Your task to perform on an android device: Open Google Maps Image 0: 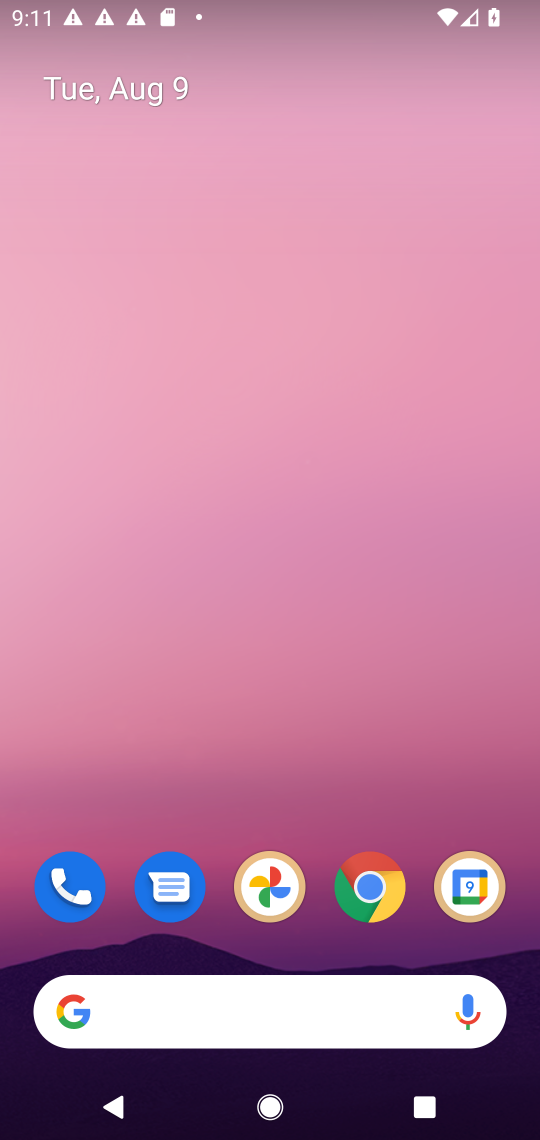
Step 0: drag from (287, 819) to (318, 204)
Your task to perform on an android device: Open Google Maps Image 1: 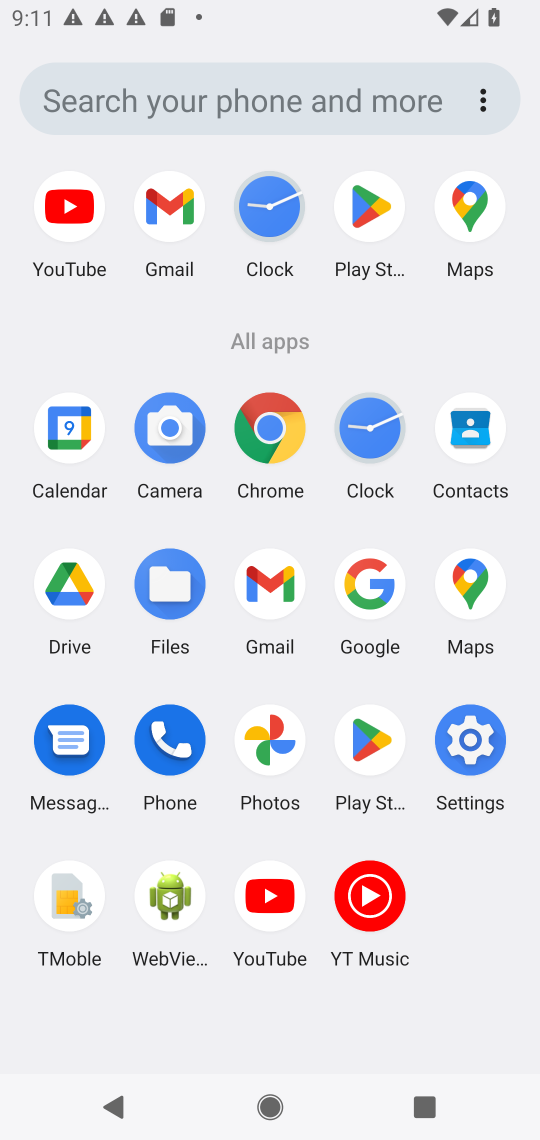
Step 1: click (483, 570)
Your task to perform on an android device: Open Google Maps Image 2: 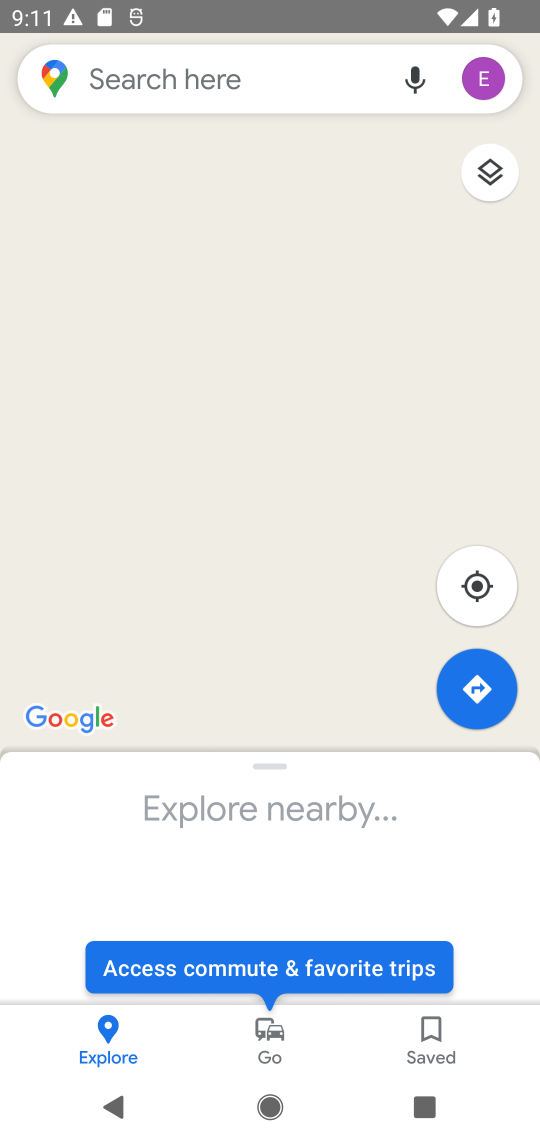
Step 2: task complete